Your task to perform on an android device: refresh tabs in the chrome app Image 0: 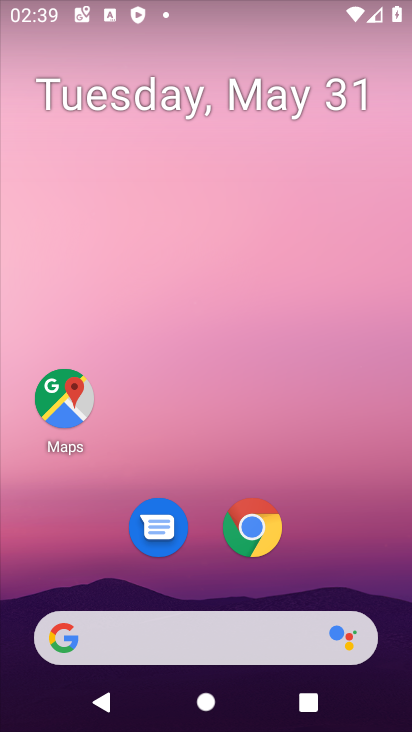
Step 0: click (250, 519)
Your task to perform on an android device: refresh tabs in the chrome app Image 1: 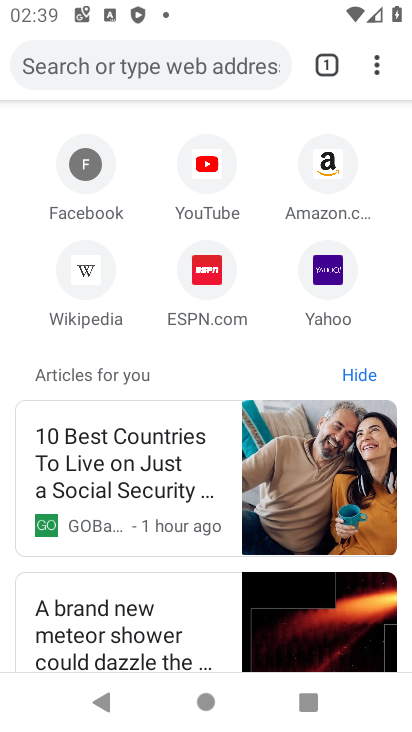
Step 1: click (377, 75)
Your task to perform on an android device: refresh tabs in the chrome app Image 2: 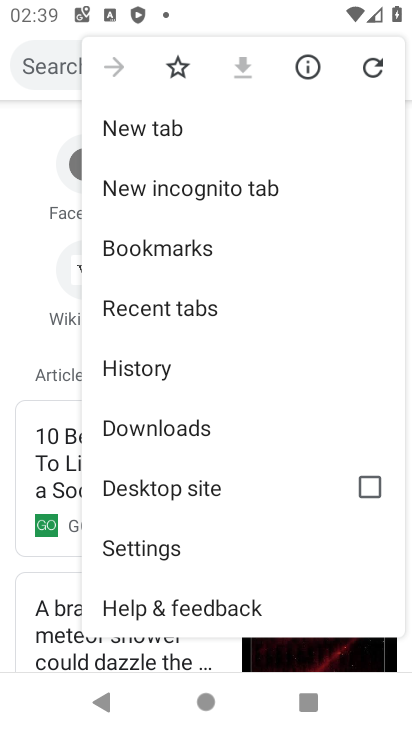
Step 2: click (372, 68)
Your task to perform on an android device: refresh tabs in the chrome app Image 3: 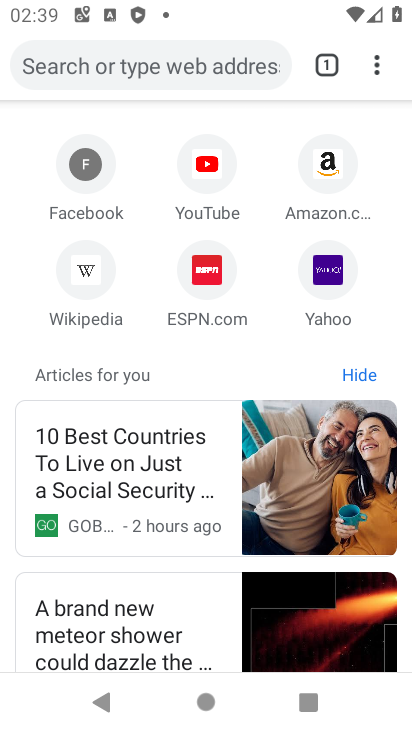
Step 3: task complete